Your task to perform on an android device: Open Android settings Image 0: 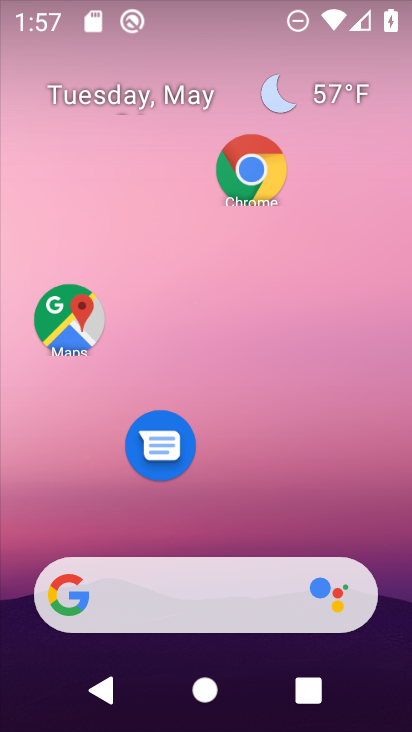
Step 0: drag from (218, 713) to (221, 111)
Your task to perform on an android device: Open Android settings Image 1: 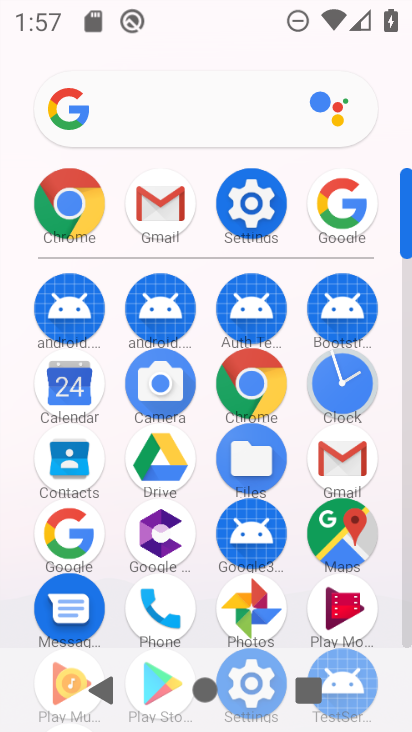
Step 1: click (255, 204)
Your task to perform on an android device: Open Android settings Image 2: 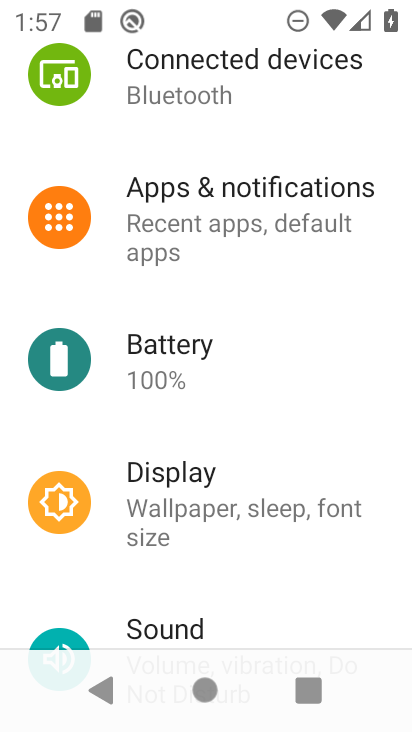
Step 2: task complete